Your task to perform on an android device: all mails in gmail Image 0: 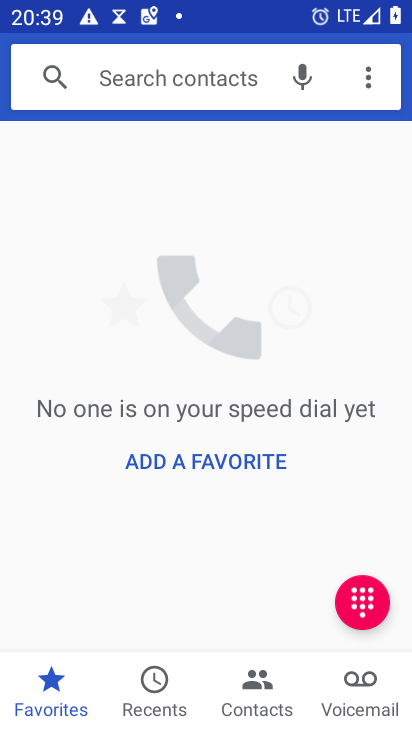
Step 0: press home button
Your task to perform on an android device: all mails in gmail Image 1: 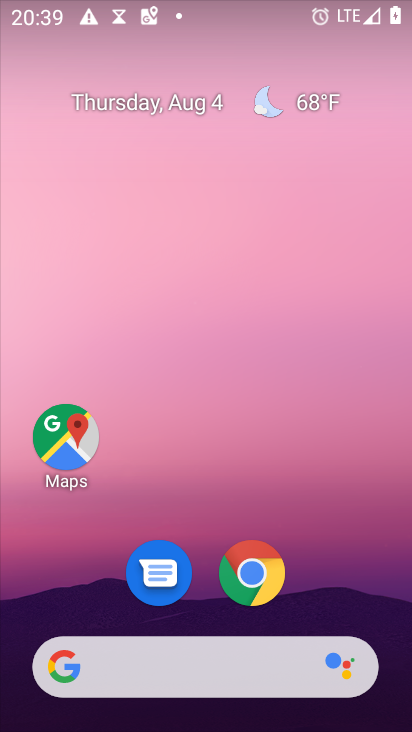
Step 1: drag from (205, 670) to (246, 234)
Your task to perform on an android device: all mails in gmail Image 2: 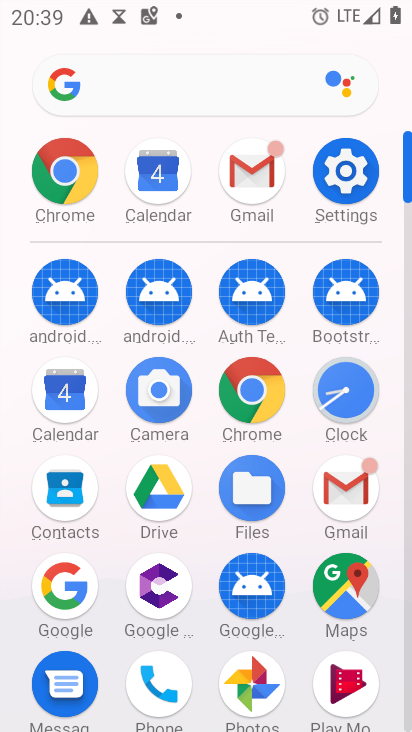
Step 2: click (344, 476)
Your task to perform on an android device: all mails in gmail Image 3: 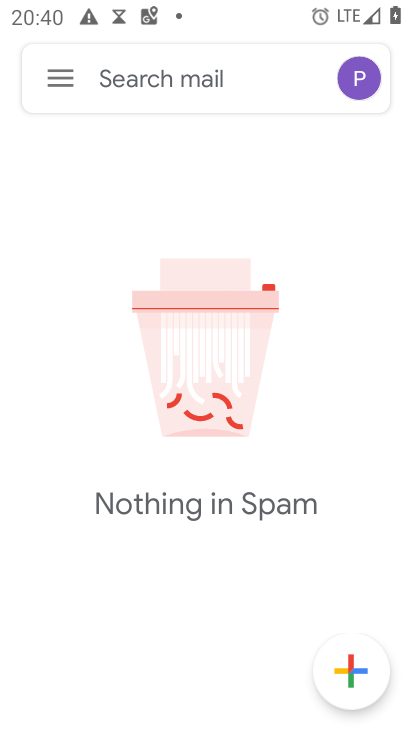
Step 3: click (78, 96)
Your task to perform on an android device: all mails in gmail Image 4: 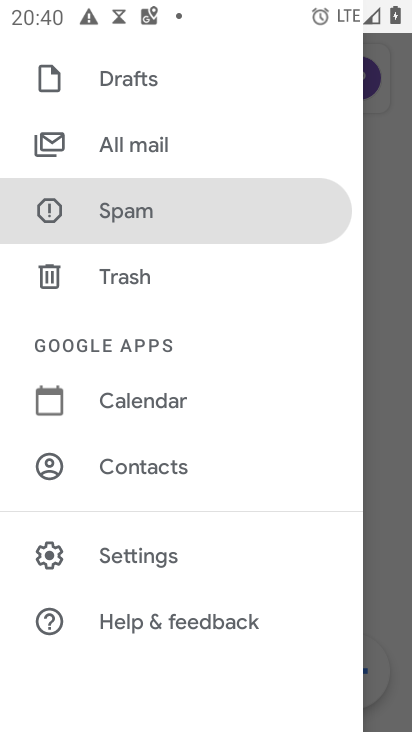
Step 4: click (136, 133)
Your task to perform on an android device: all mails in gmail Image 5: 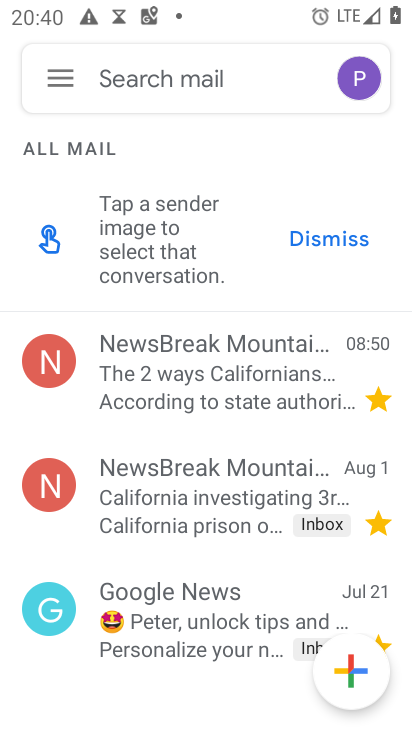
Step 5: task complete